Your task to perform on an android device: Open the Play Movies app and select the watchlist tab. Image 0: 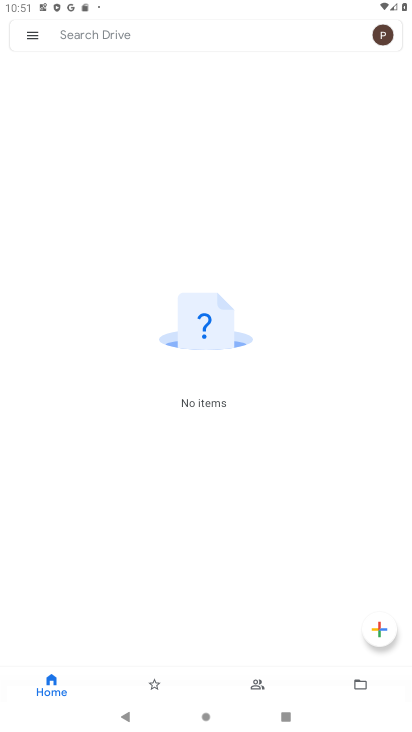
Step 0: press home button
Your task to perform on an android device: Open the Play Movies app and select the watchlist tab. Image 1: 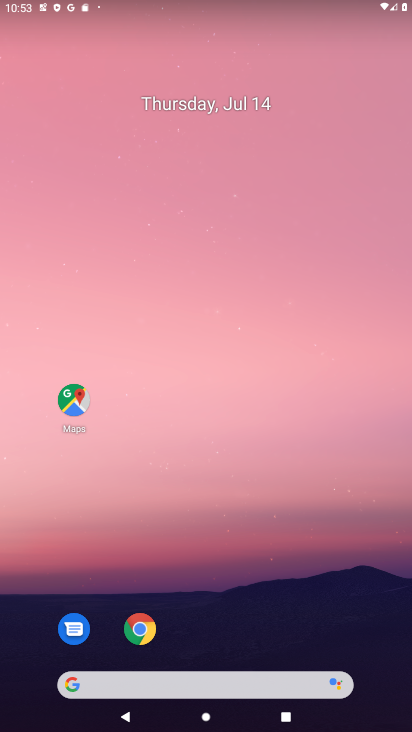
Step 1: drag from (10, 652) to (245, 149)
Your task to perform on an android device: Open the Play Movies app and select the watchlist tab. Image 2: 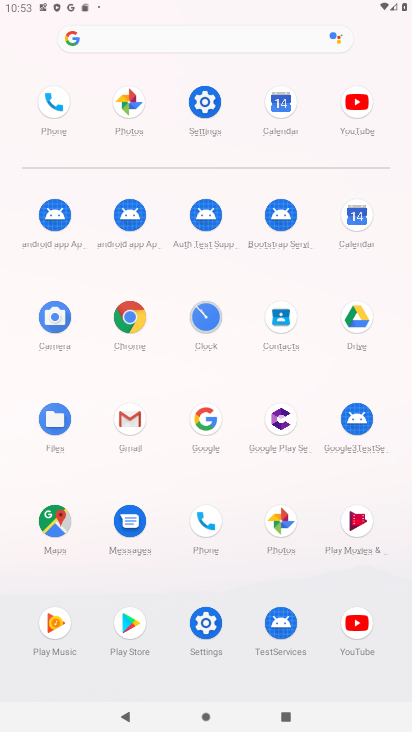
Step 2: click (355, 524)
Your task to perform on an android device: Open the Play Movies app and select the watchlist tab. Image 3: 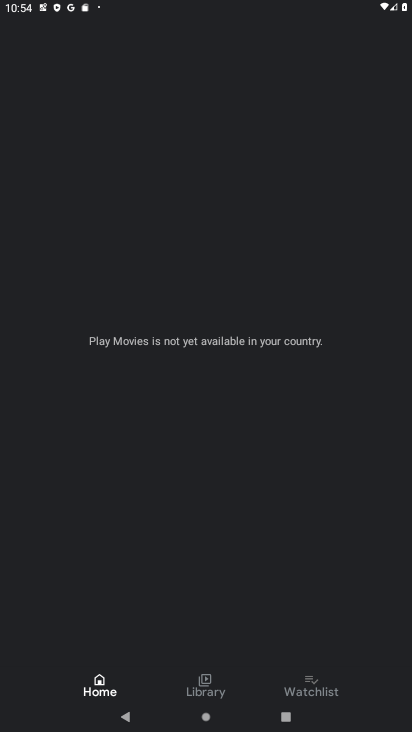
Step 3: click (312, 685)
Your task to perform on an android device: Open the Play Movies app and select the watchlist tab. Image 4: 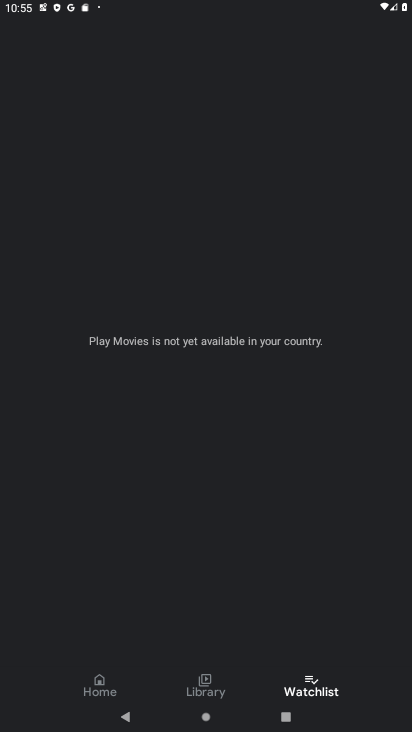
Step 4: task complete